Your task to perform on an android device: Open Amazon Image 0: 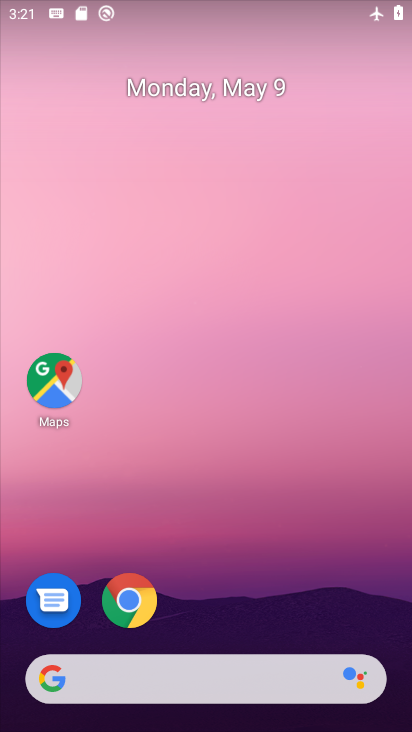
Step 0: click (142, 595)
Your task to perform on an android device: Open Amazon Image 1: 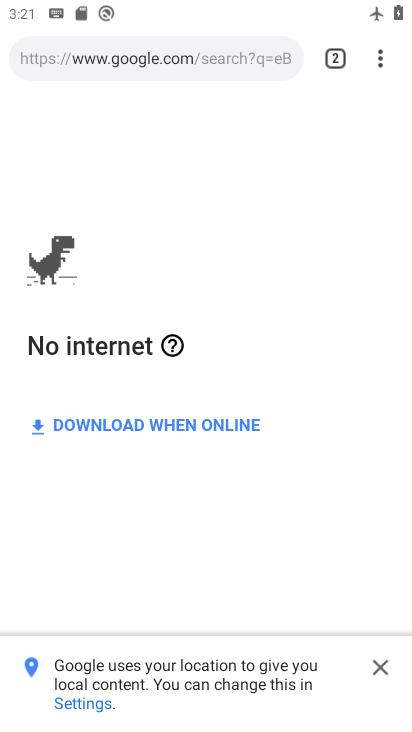
Step 1: drag from (321, 17) to (311, 465)
Your task to perform on an android device: Open Amazon Image 2: 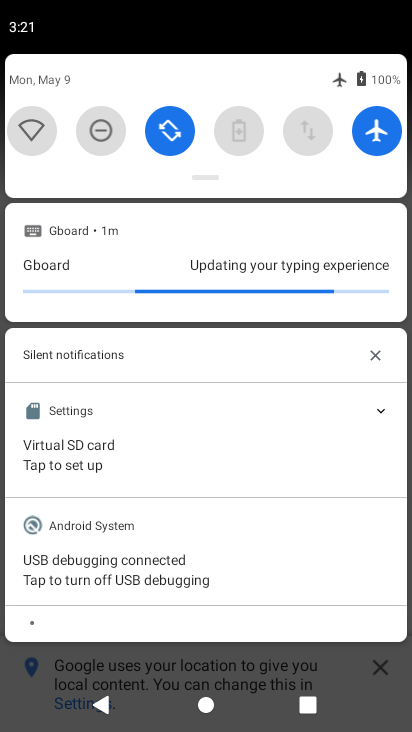
Step 2: click (374, 135)
Your task to perform on an android device: Open Amazon Image 3: 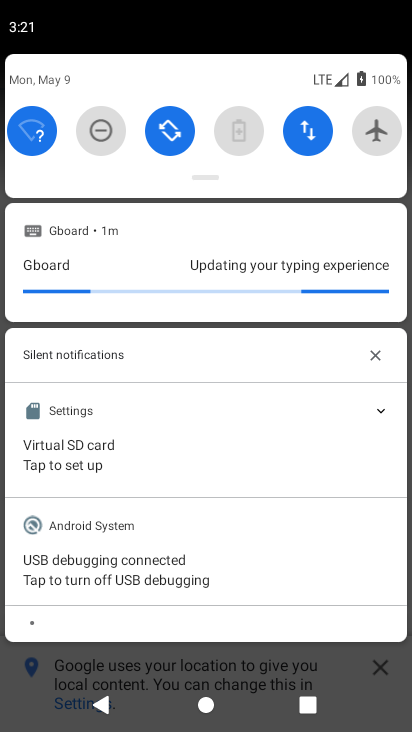
Step 3: drag from (311, 698) to (374, 202)
Your task to perform on an android device: Open Amazon Image 4: 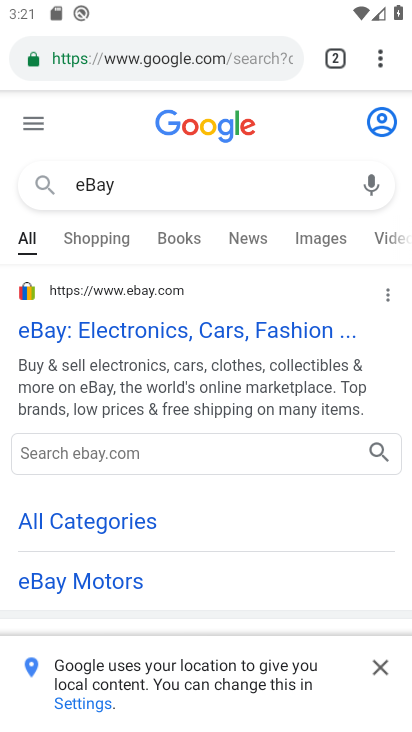
Step 4: click (379, 661)
Your task to perform on an android device: Open Amazon Image 5: 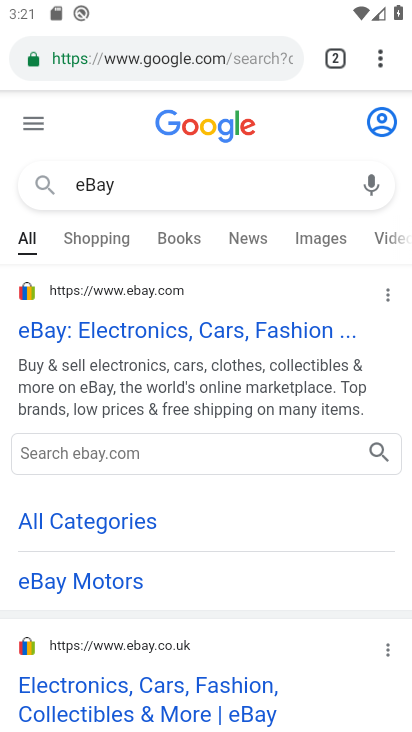
Step 5: click (330, 52)
Your task to perform on an android device: Open Amazon Image 6: 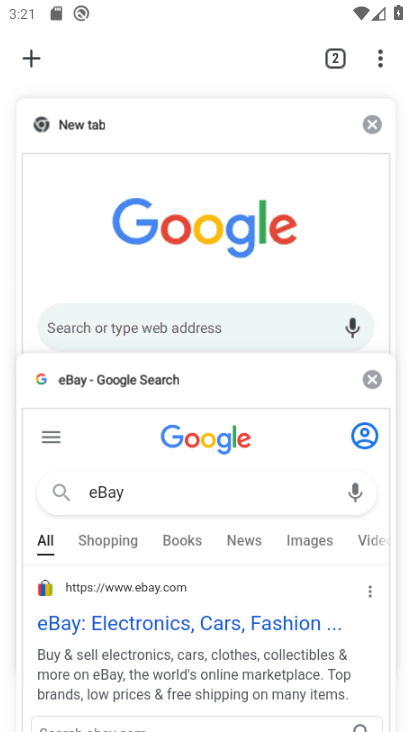
Step 6: click (198, 259)
Your task to perform on an android device: Open Amazon Image 7: 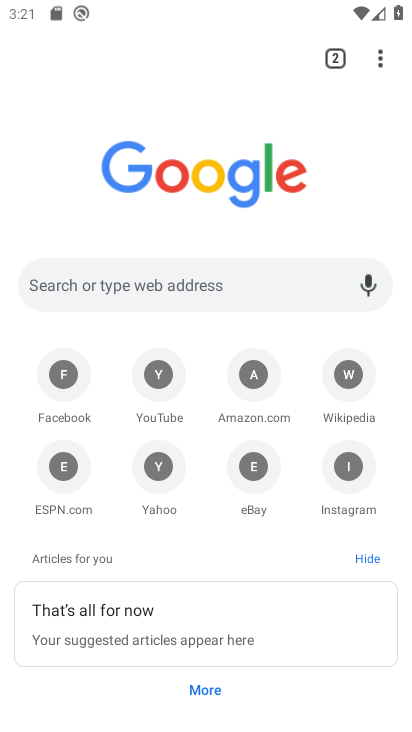
Step 7: click (276, 395)
Your task to perform on an android device: Open Amazon Image 8: 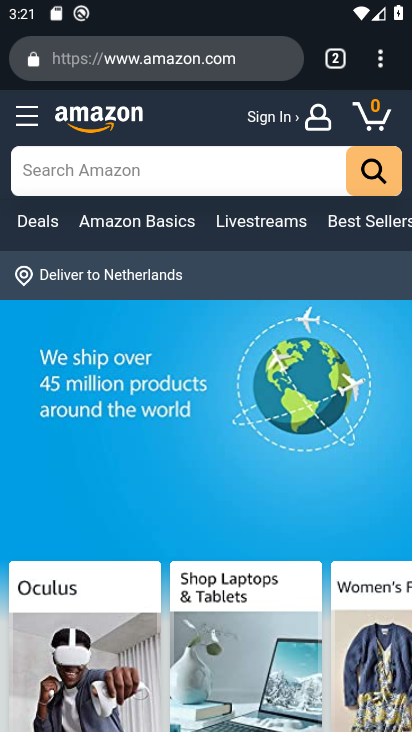
Step 8: task complete